Your task to perform on an android device: Open the map Image 0: 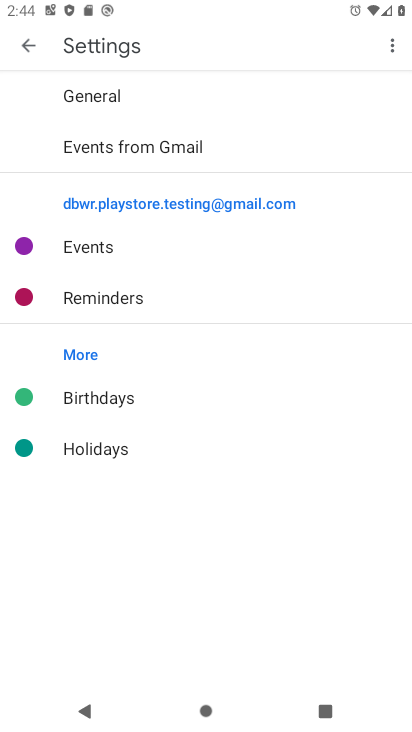
Step 0: press home button
Your task to perform on an android device: Open the map Image 1: 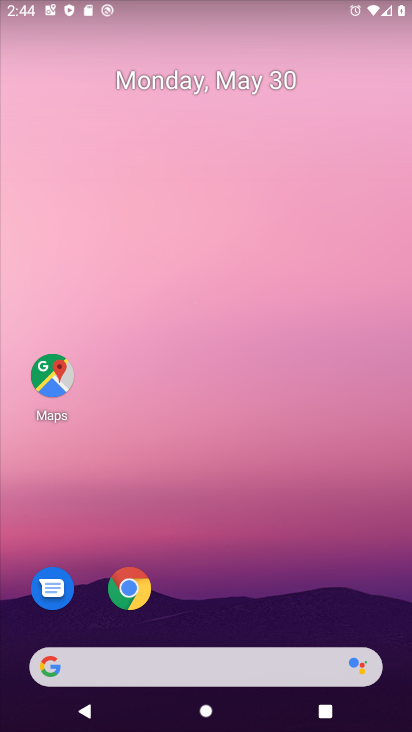
Step 1: click (62, 377)
Your task to perform on an android device: Open the map Image 2: 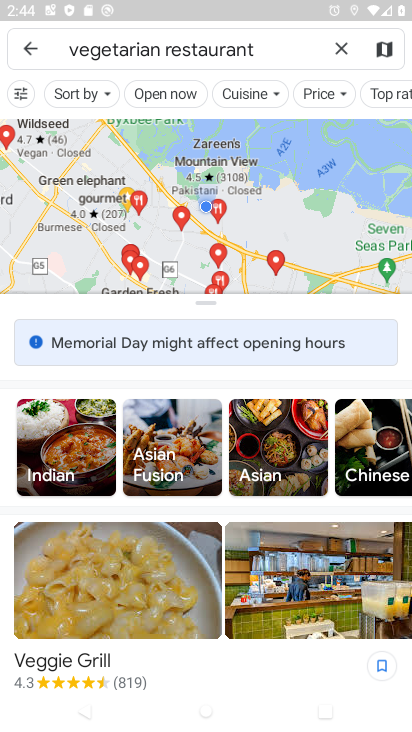
Step 2: task complete